Your task to perform on an android device: empty trash in the gmail app Image 0: 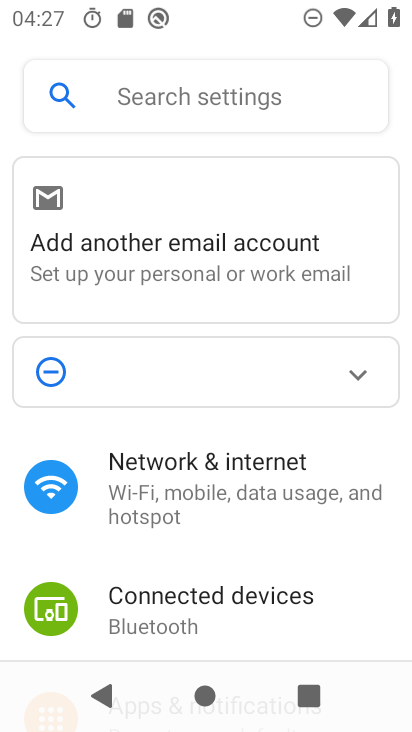
Step 0: drag from (192, 595) to (249, 113)
Your task to perform on an android device: empty trash in the gmail app Image 1: 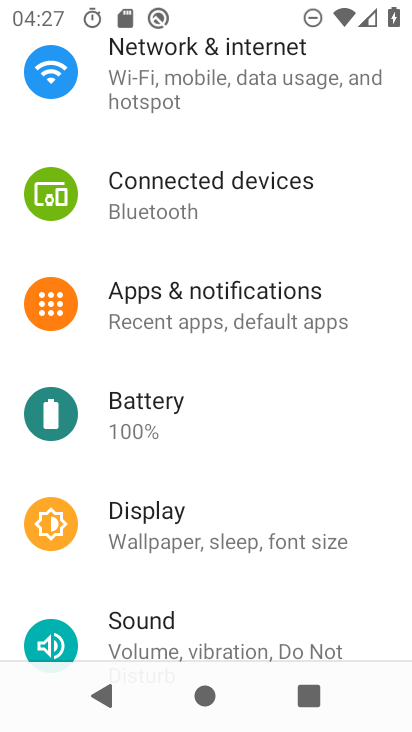
Step 1: press home button
Your task to perform on an android device: empty trash in the gmail app Image 2: 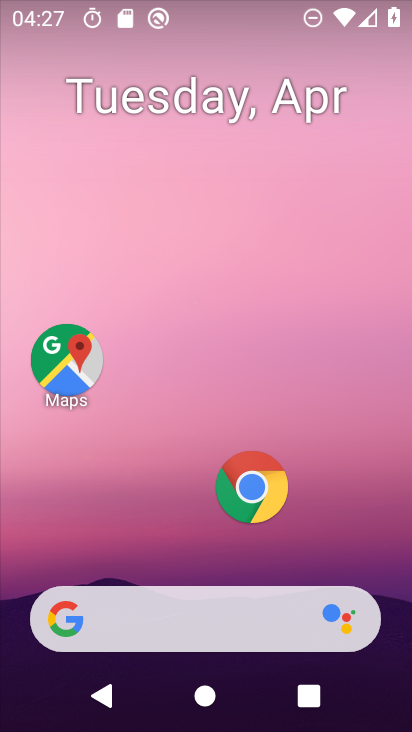
Step 2: drag from (188, 501) to (283, 57)
Your task to perform on an android device: empty trash in the gmail app Image 3: 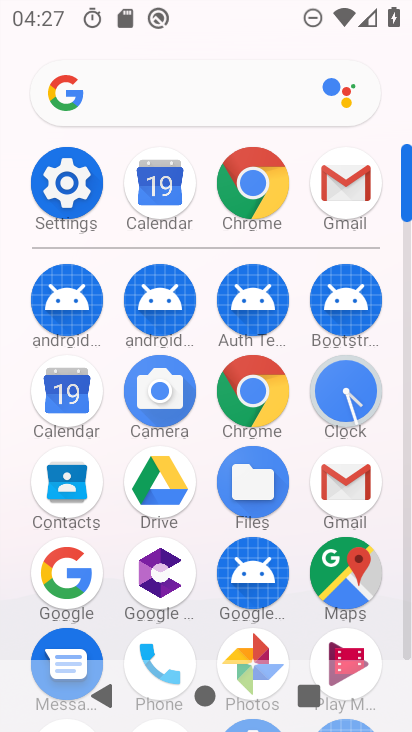
Step 3: click (340, 193)
Your task to perform on an android device: empty trash in the gmail app Image 4: 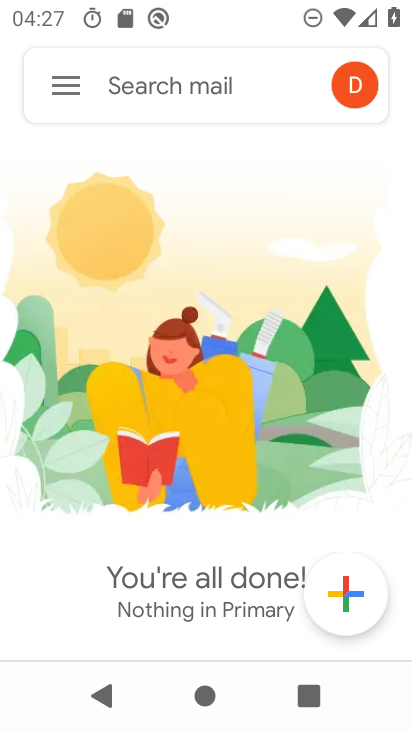
Step 4: click (55, 82)
Your task to perform on an android device: empty trash in the gmail app Image 5: 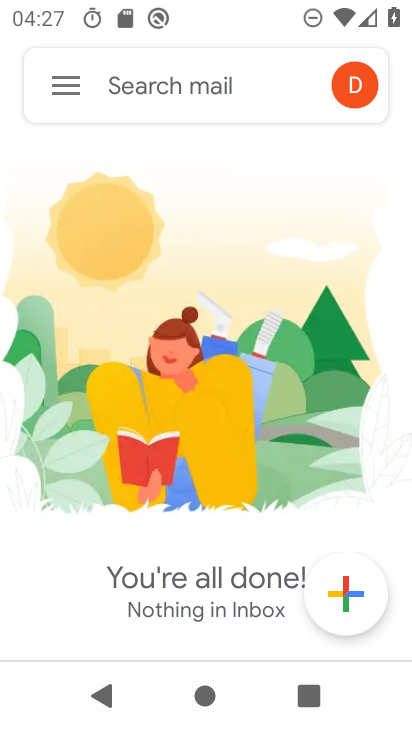
Step 5: drag from (63, 80) to (70, 254)
Your task to perform on an android device: empty trash in the gmail app Image 6: 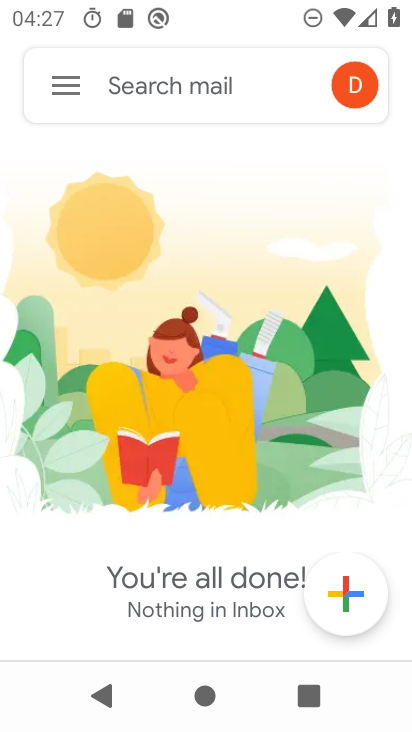
Step 6: click (59, 88)
Your task to perform on an android device: empty trash in the gmail app Image 7: 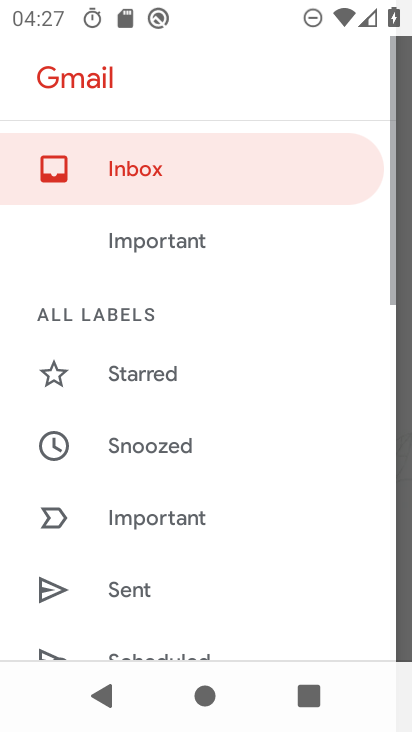
Step 7: drag from (174, 596) to (262, 187)
Your task to perform on an android device: empty trash in the gmail app Image 8: 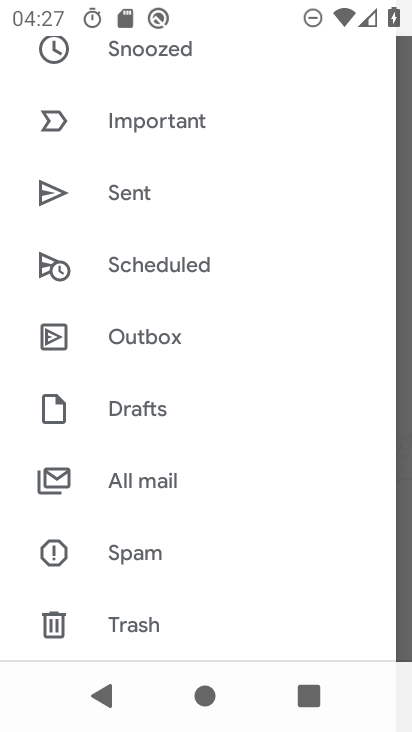
Step 8: click (135, 641)
Your task to perform on an android device: empty trash in the gmail app Image 9: 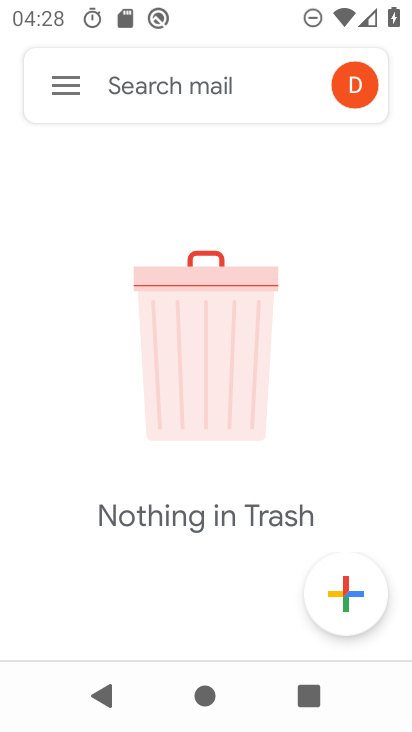
Step 9: task complete